Your task to perform on an android device: turn off location history Image 0: 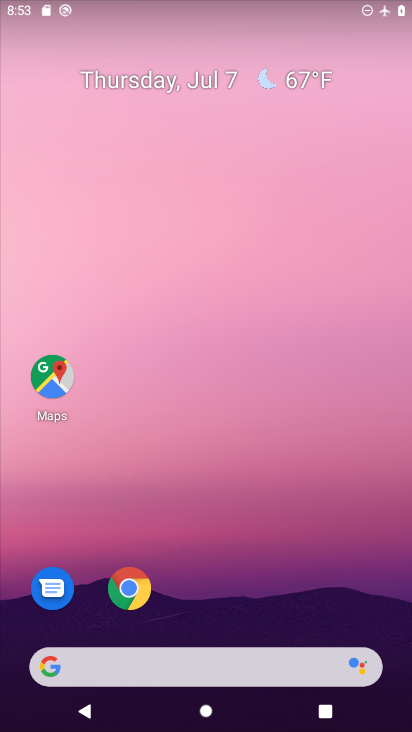
Step 0: drag from (224, 606) to (230, 79)
Your task to perform on an android device: turn off location history Image 1: 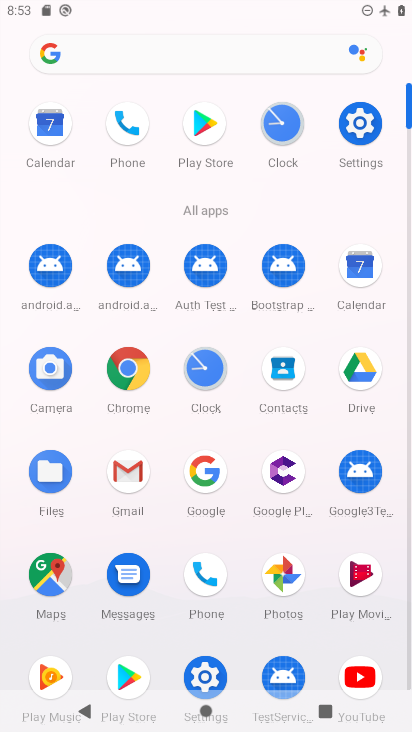
Step 1: click (360, 123)
Your task to perform on an android device: turn off location history Image 2: 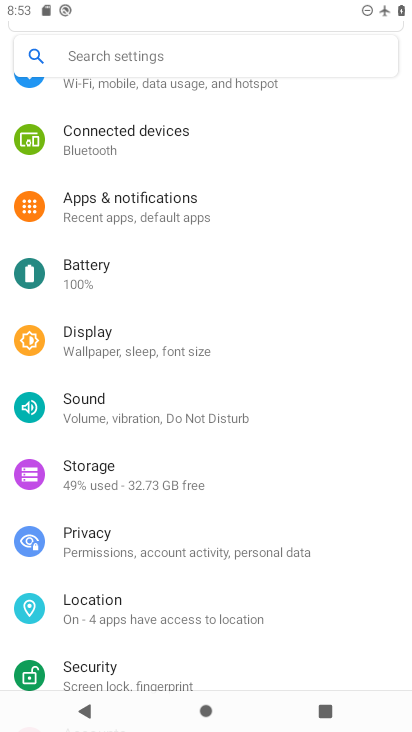
Step 2: drag from (144, 534) to (222, 376)
Your task to perform on an android device: turn off location history Image 3: 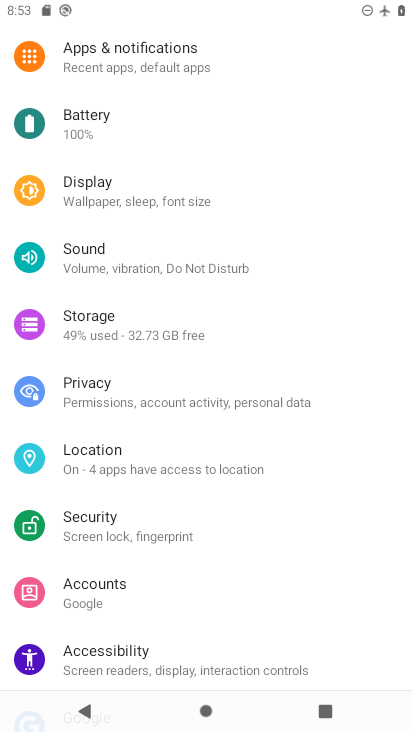
Step 3: click (154, 464)
Your task to perform on an android device: turn off location history Image 4: 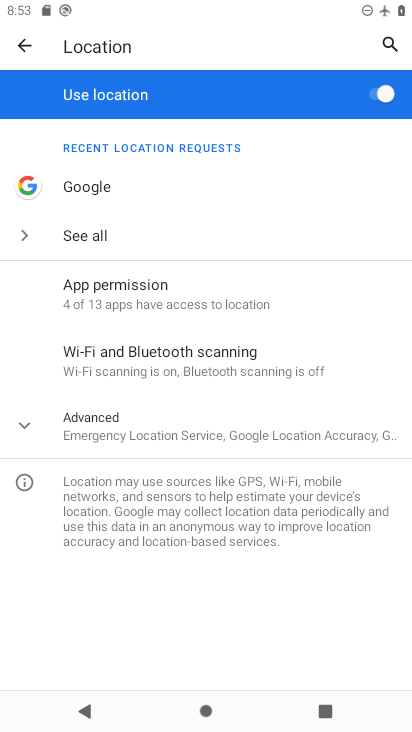
Step 4: click (185, 433)
Your task to perform on an android device: turn off location history Image 5: 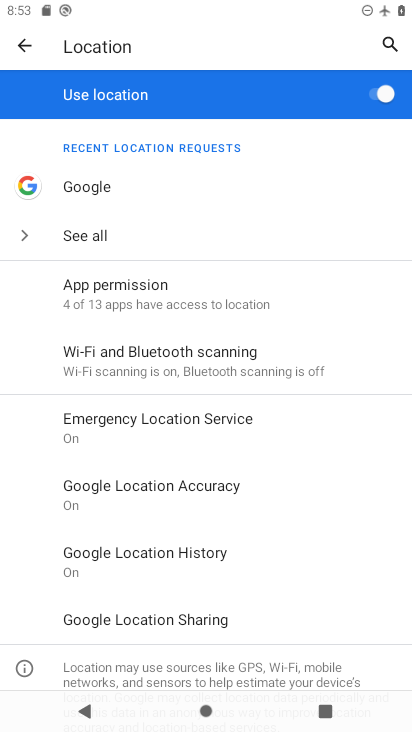
Step 5: click (134, 557)
Your task to perform on an android device: turn off location history Image 6: 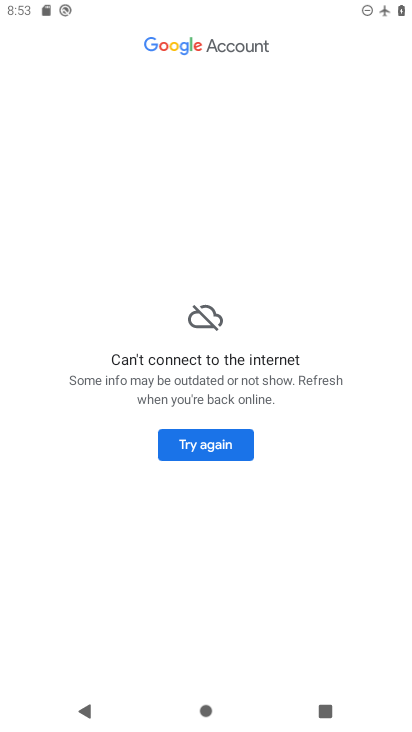
Step 6: click (215, 453)
Your task to perform on an android device: turn off location history Image 7: 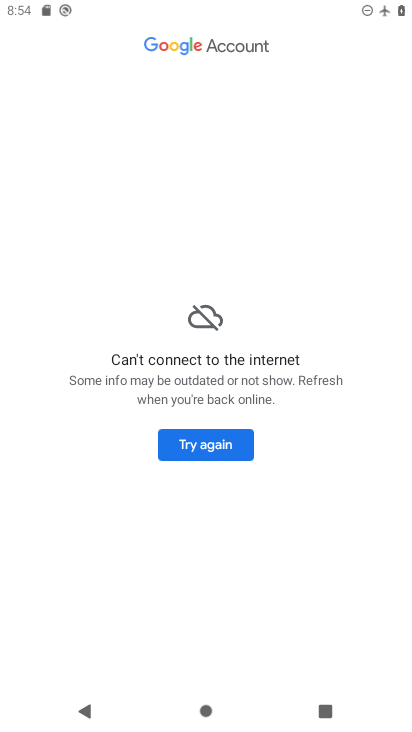
Step 7: click (215, 448)
Your task to perform on an android device: turn off location history Image 8: 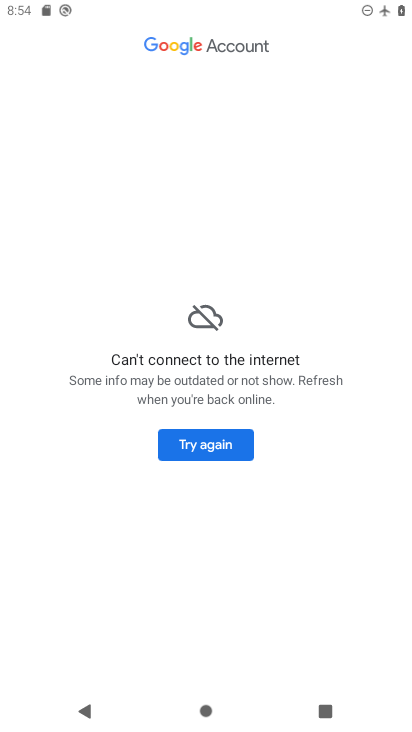
Step 8: task complete